Your task to perform on an android device: clear history in the chrome app Image 0: 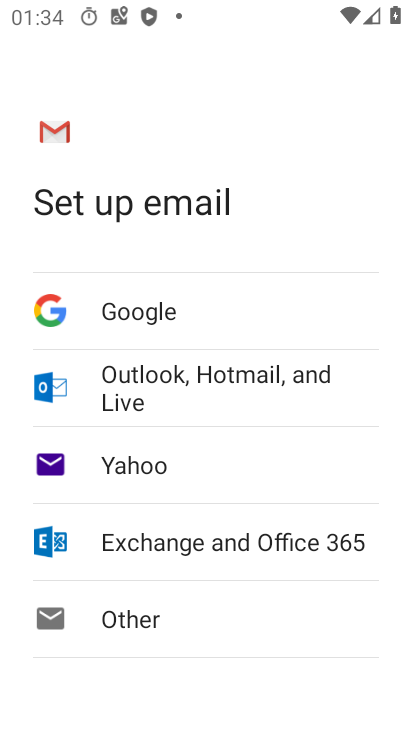
Step 0: press home button
Your task to perform on an android device: clear history in the chrome app Image 1: 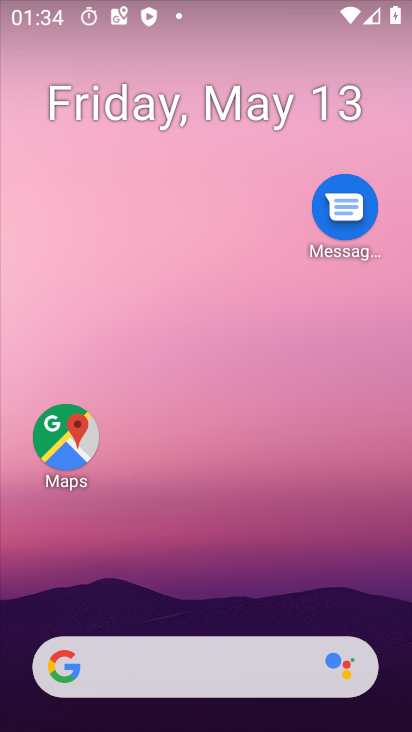
Step 1: drag from (283, 533) to (220, 56)
Your task to perform on an android device: clear history in the chrome app Image 2: 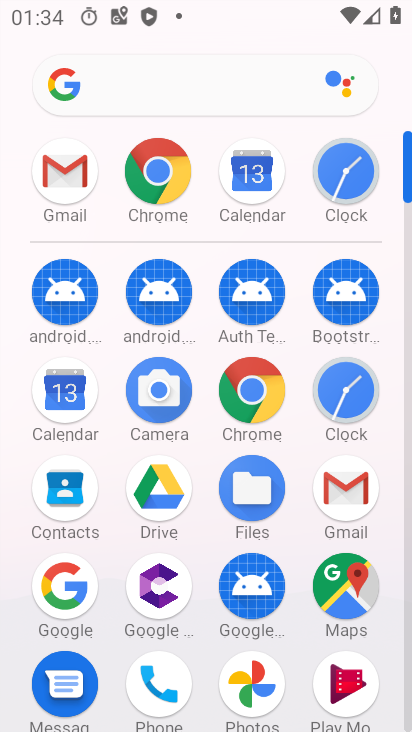
Step 2: click (168, 160)
Your task to perform on an android device: clear history in the chrome app Image 3: 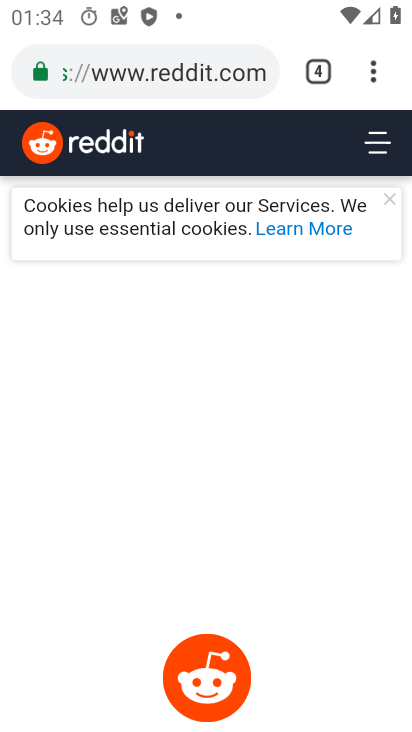
Step 3: click (374, 82)
Your task to perform on an android device: clear history in the chrome app Image 4: 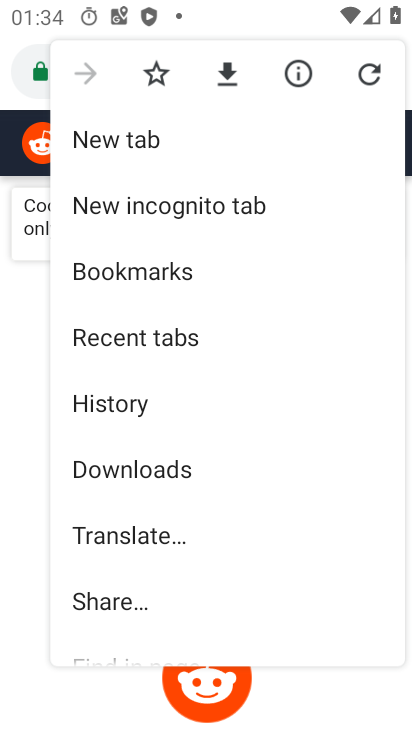
Step 4: drag from (220, 543) to (235, 153)
Your task to perform on an android device: clear history in the chrome app Image 5: 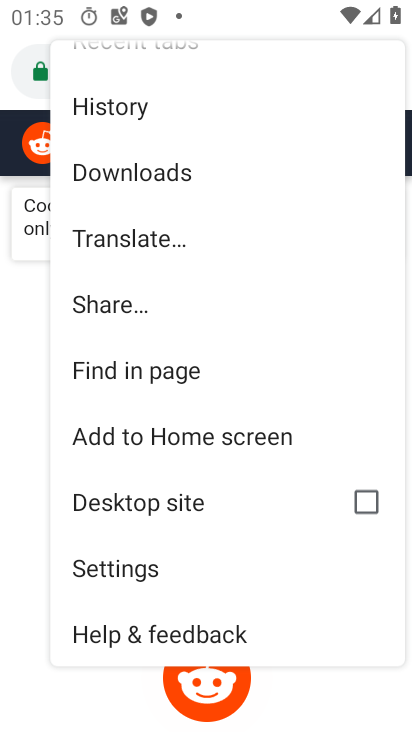
Step 5: click (109, 114)
Your task to perform on an android device: clear history in the chrome app Image 6: 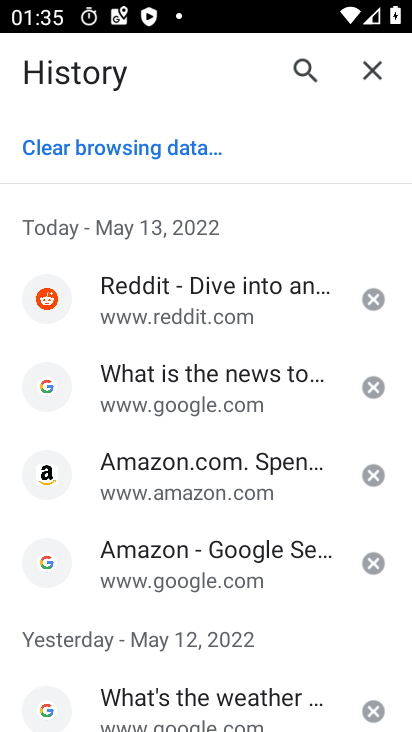
Step 6: click (156, 145)
Your task to perform on an android device: clear history in the chrome app Image 7: 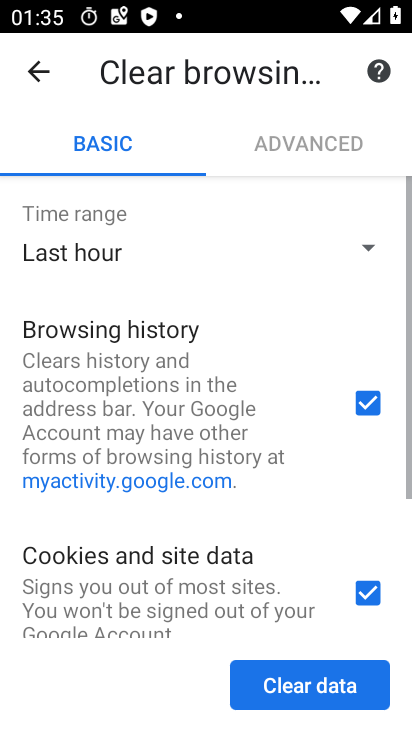
Step 7: click (253, 658)
Your task to perform on an android device: clear history in the chrome app Image 8: 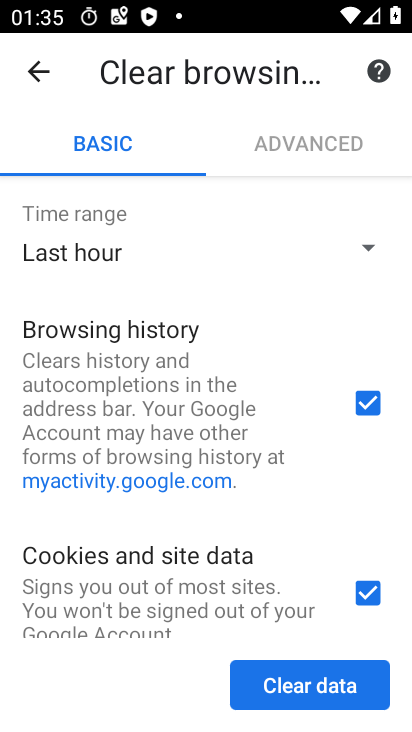
Step 8: click (315, 668)
Your task to perform on an android device: clear history in the chrome app Image 9: 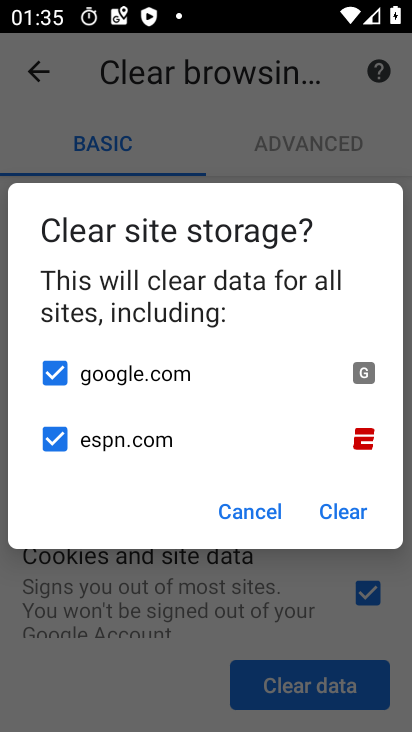
Step 9: click (336, 521)
Your task to perform on an android device: clear history in the chrome app Image 10: 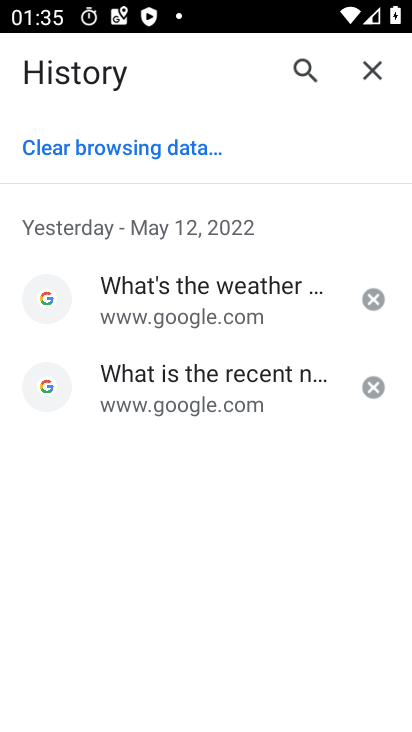
Step 10: click (377, 289)
Your task to perform on an android device: clear history in the chrome app Image 11: 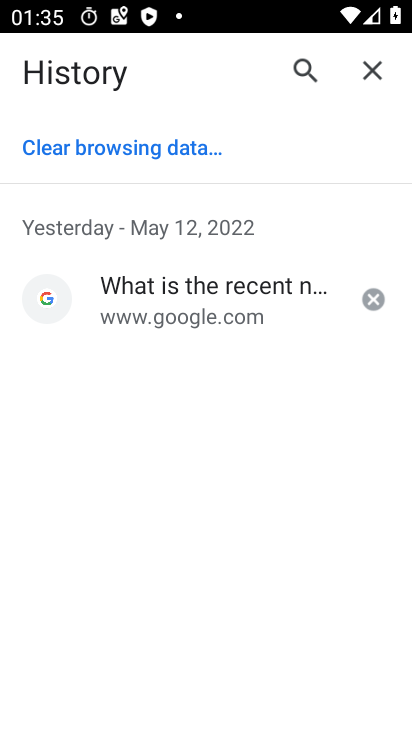
Step 11: click (374, 291)
Your task to perform on an android device: clear history in the chrome app Image 12: 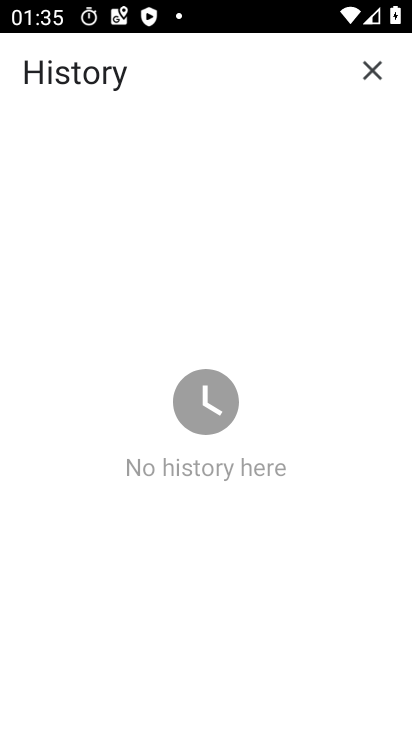
Step 12: task complete